Your task to perform on an android device: Go to network settings Image 0: 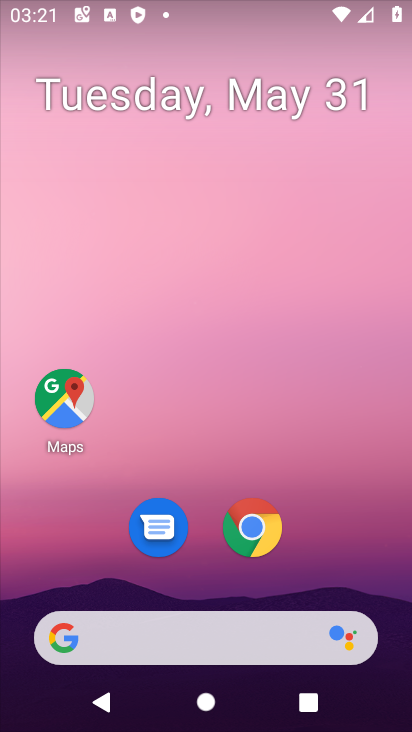
Step 0: drag from (393, 639) to (340, 144)
Your task to perform on an android device: Go to network settings Image 1: 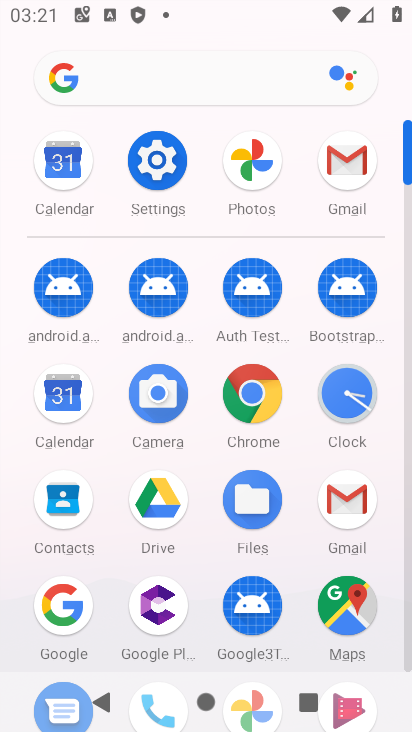
Step 1: click (406, 642)
Your task to perform on an android device: Go to network settings Image 2: 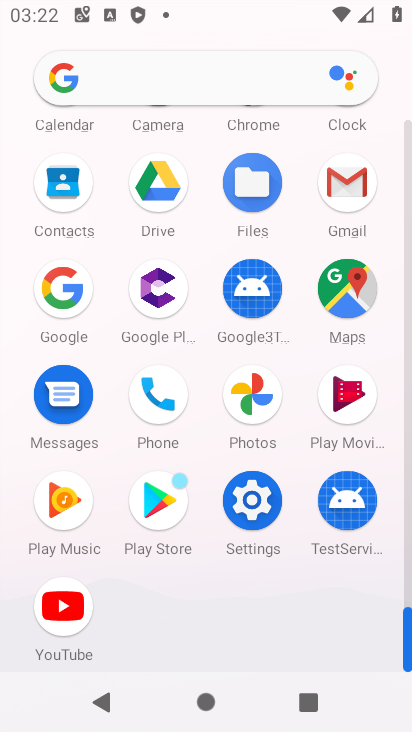
Step 2: click (253, 497)
Your task to perform on an android device: Go to network settings Image 3: 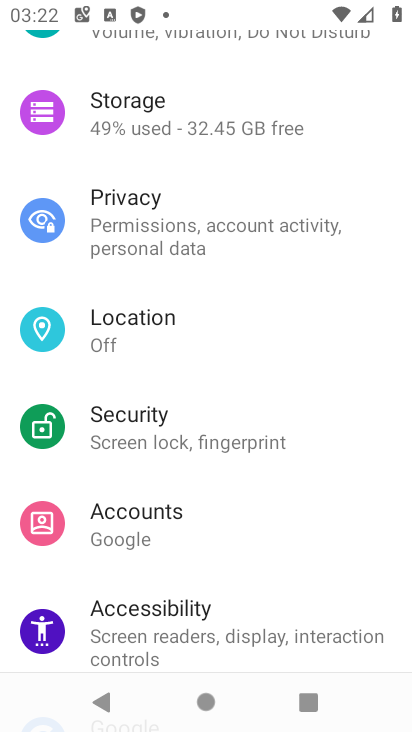
Step 3: drag from (327, 194) to (325, 524)
Your task to perform on an android device: Go to network settings Image 4: 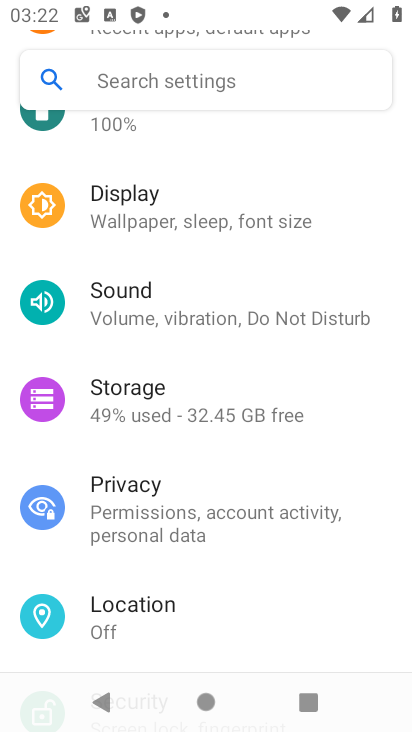
Step 4: drag from (360, 204) to (367, 565)
Your task to perform on an android device: Go to network settings Image 5: 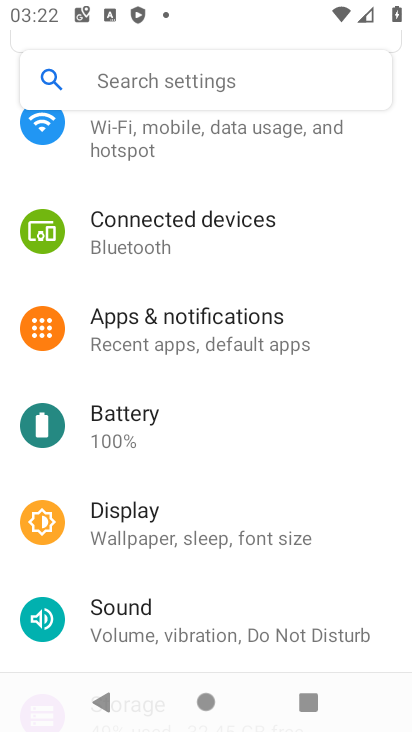
Step 5: drag from (342, 249) to (331, 505)
Your task to perform on an android device: Go to network settings Image 6: 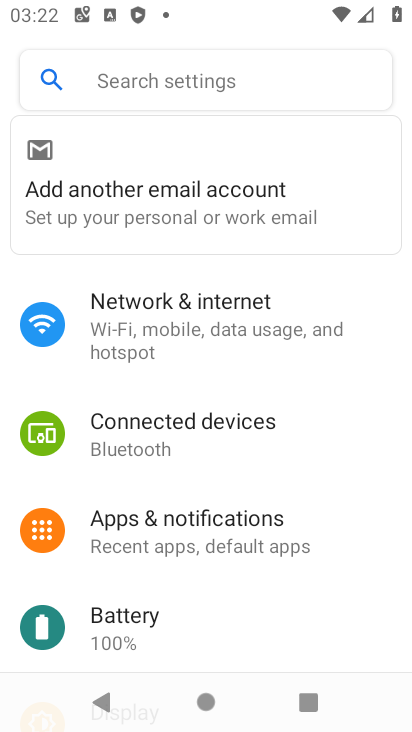
Step 6: click (118, 312)
Your task to perform on an android device: Go to network settings Image 7: 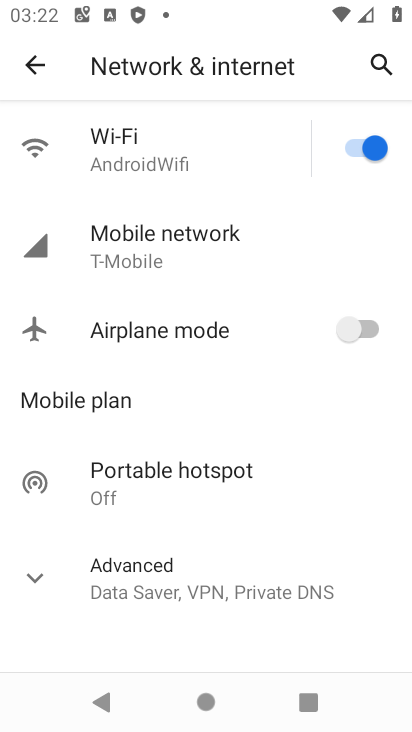
Step 7: click (130, 228)
Your task to perform on an android device: Go to network settings Image 8: 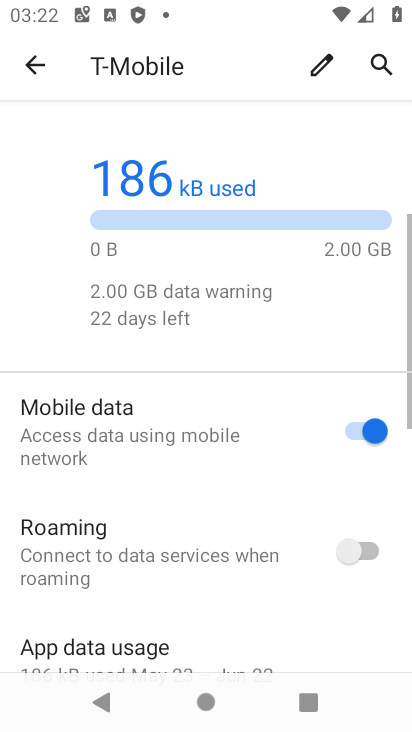
Step 8: drag from (88, 563) to (206, 241)
Your task to perform on an android device: Go to network settings Image 9: 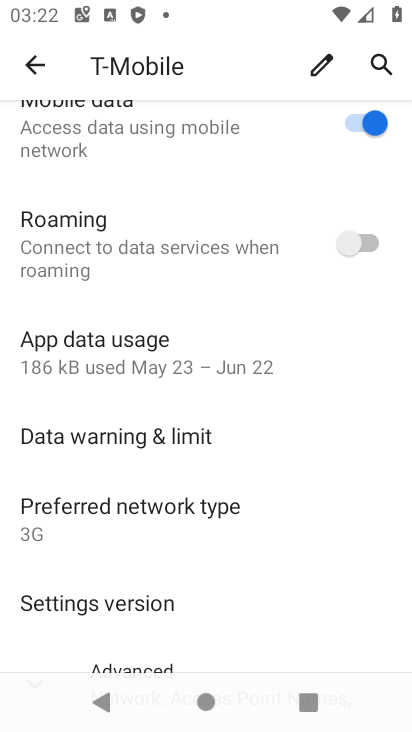
Step 9: drag from (182, 622) to (246, 299)
Your task to perform on an android device: Go to network settings Image 10: 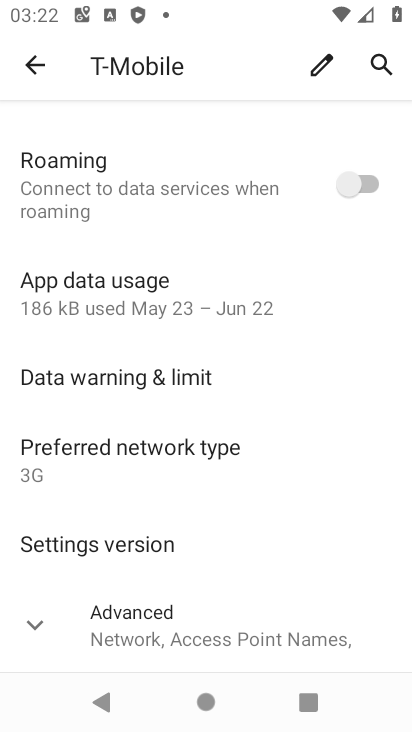
Step 10: click (27, 624)
Your task to perform on an android device: Go to network settings Image 11: 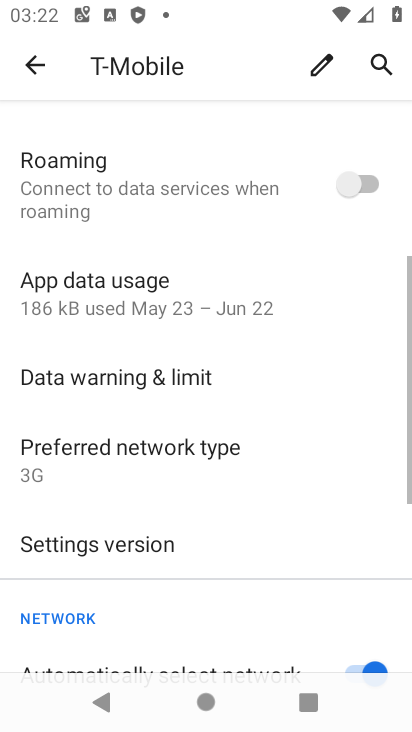
Step 11: task complete